Your task to perform on an android device: toggle notifications settings in the gmail app Image 0: 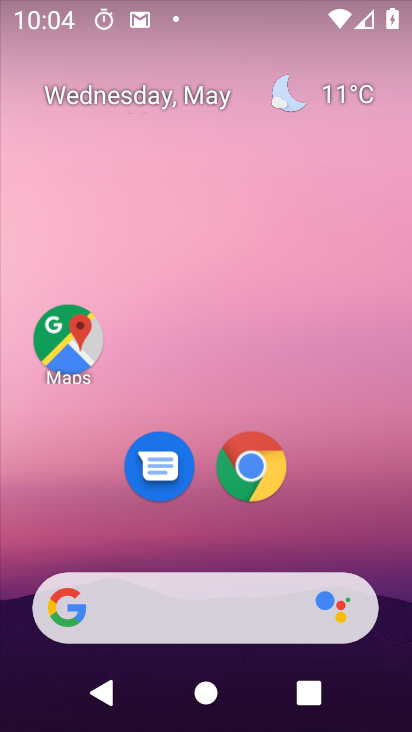
Step 0: drag from (294, 543) to (291, 100)
Your task to perform on an android device: toggle notifications settings in the gmail app Image 1: 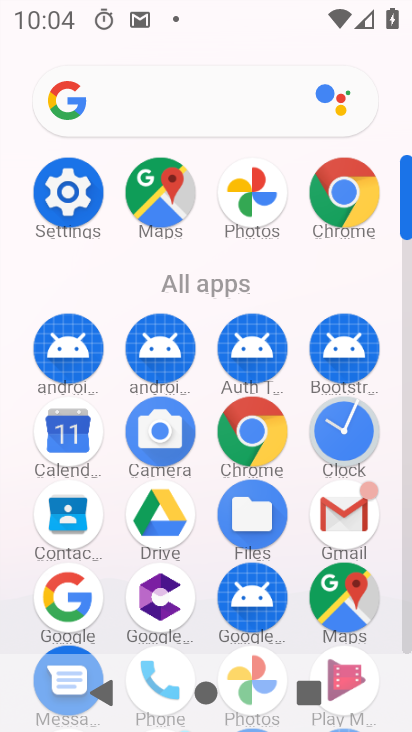
Step 1: click (328, 518)
Your task to perform on an android device: toggle notifications settings in the gmail app Image 2: 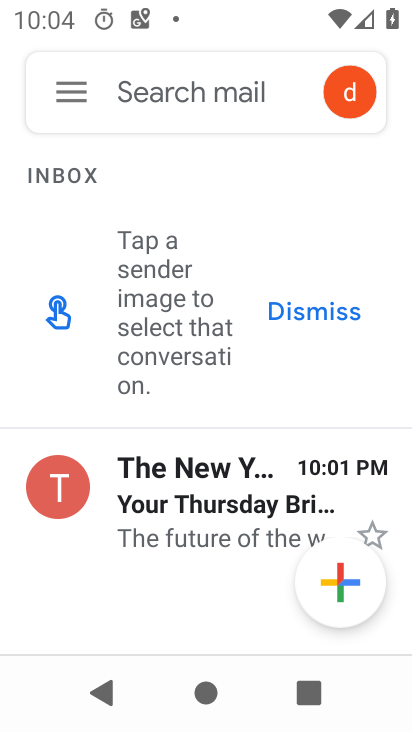
Step 2: click (69, 99)
Your task to perform on an android device: toggle notifications settings in the gmail app Image 3: 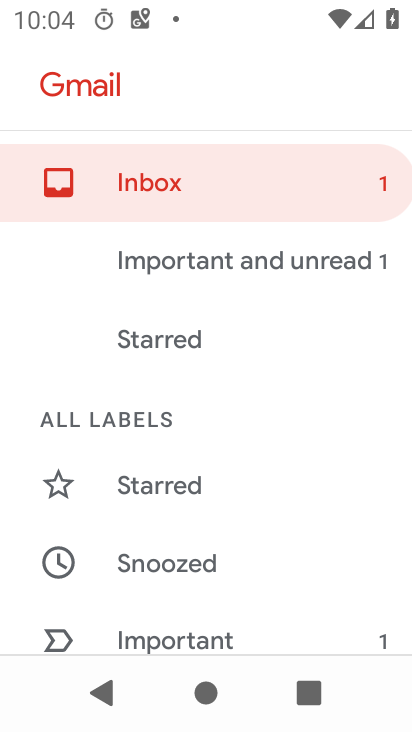
Step 3: drag from (242, 601) to (242, 173)
Your task to perform on an android device: toggle notifications settings in the gmail app Image 4: 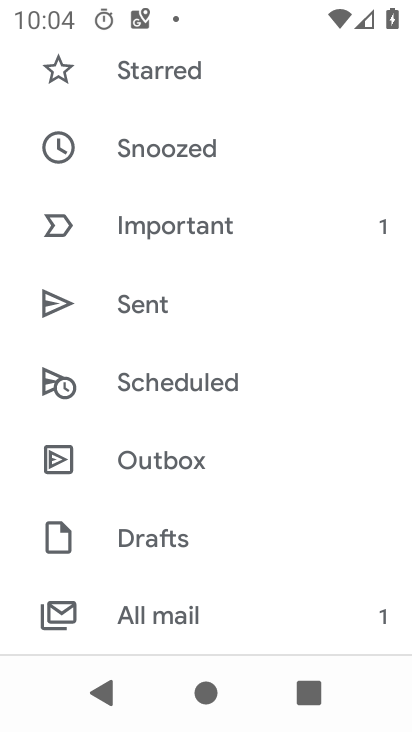
Step 4: drag from (201, 587) to (229, 156)
Your task to perform on an android device: toggle notifications settings in the gmail app Image 5: 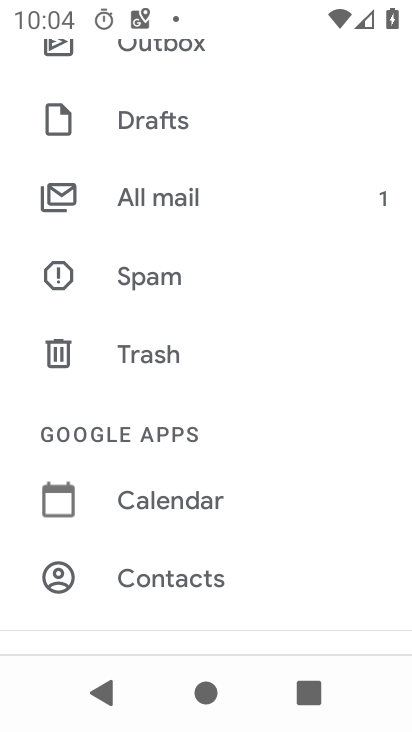
Step 5: drag from (202, 615) to (248, 276)
Your task to perform on an android device: toggle notifications settings in the gmail app Image 6: 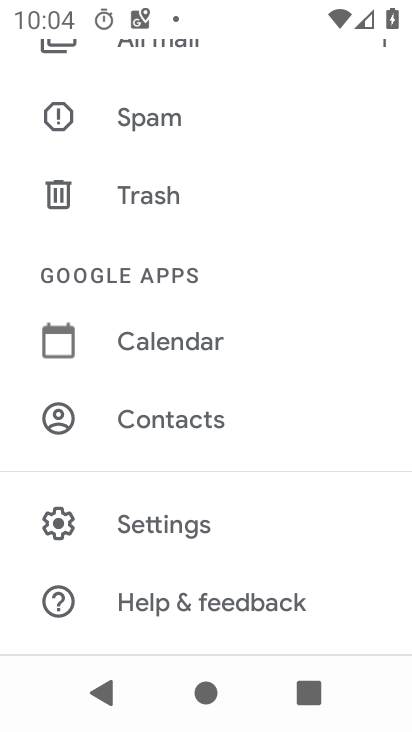
Step 6: click (165, 520)
Your task to perform on an android device: toggle notifications settings in the gmail app Image 7: 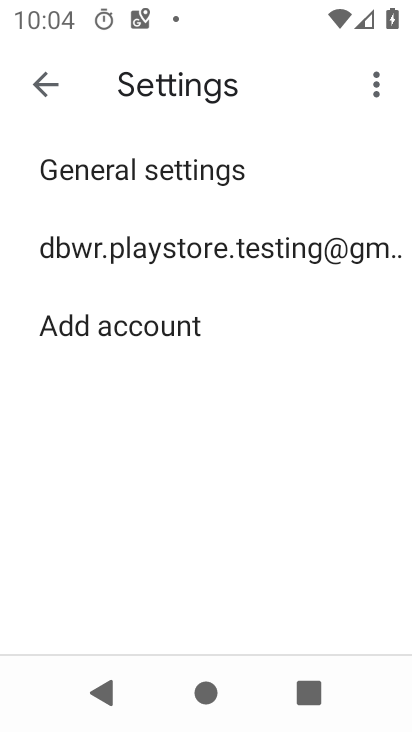
Step 7: click (228, 259)
Your task to perform on an android device: toggle notifications settings in the gmail app Image 8: 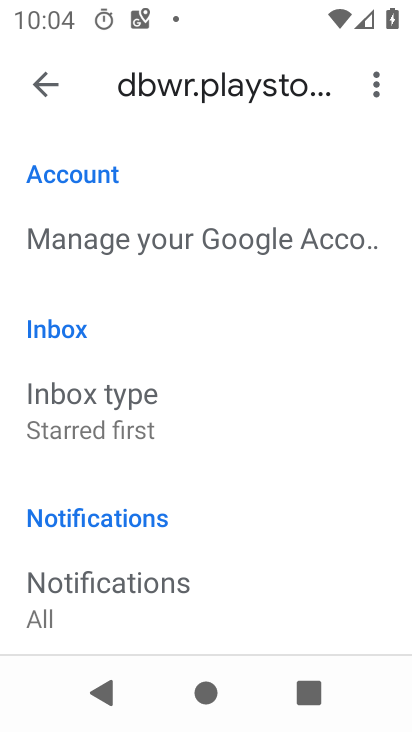
Step 8: drag from (177, 566) to (228, 176)
Your task to perform on an android device: toggle notifications settings in the gmail app Image 9: 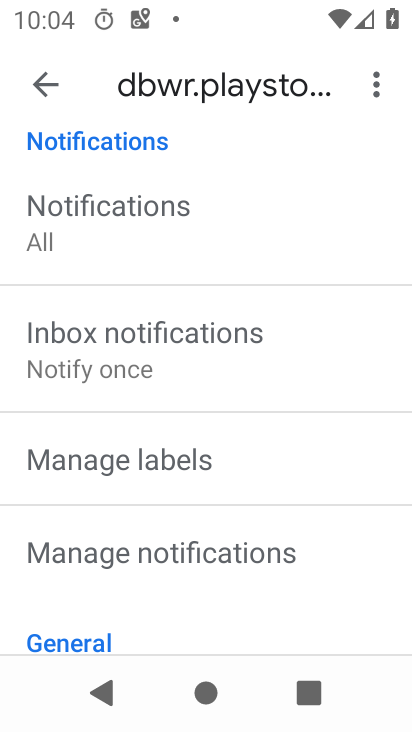
Step 9: click (116, 243)
Your task to perform on an android device: toggle notifications settings in the gmail app Image 10: 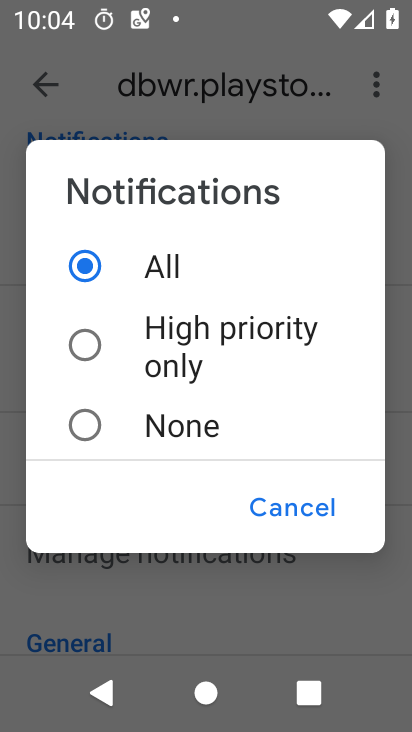
Step 10: click (83, 420)
Your task to perform on an android device: toggle notifications settings in the gmail app Image 11: 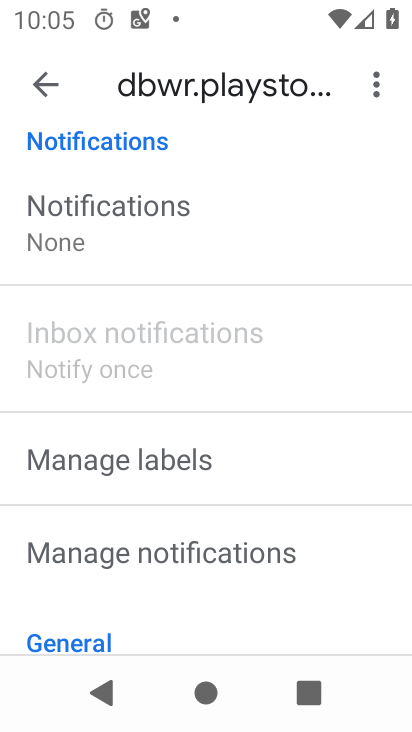
Step 11: task complete